Your task to perform on an android device: Open network settings Image 0: 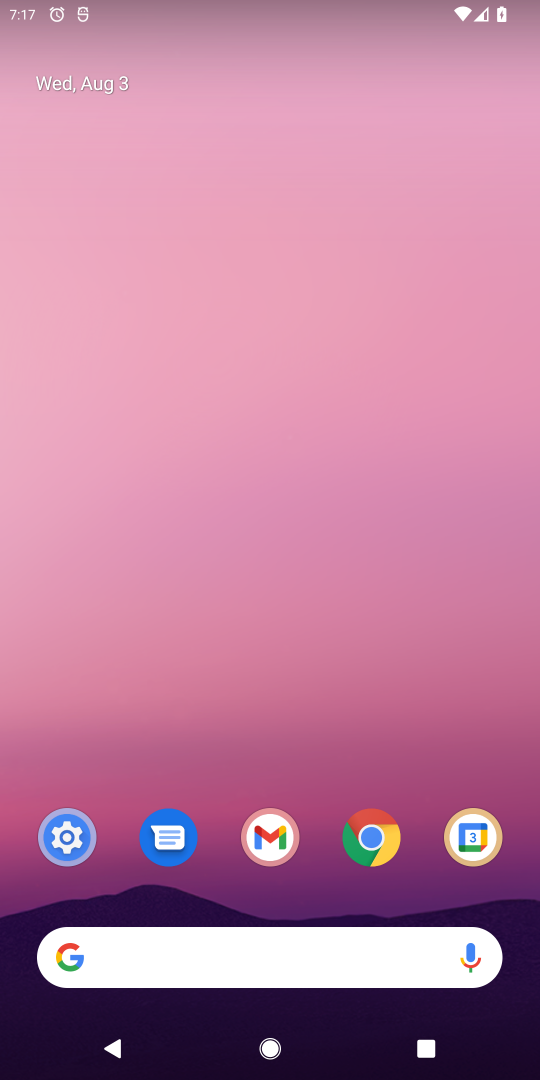
Step 0: press home button
Your task to perform on an android device: Open network settings Image 1: 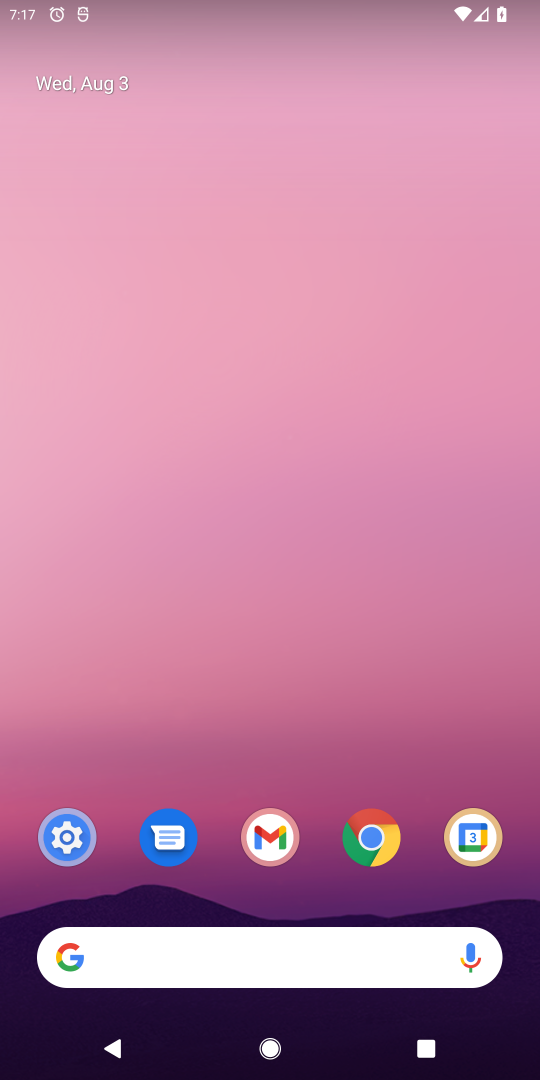
Step 1: drag from (338, 525) to (323, 97)
Your task to perform on an android device: Open network settings Image 2: 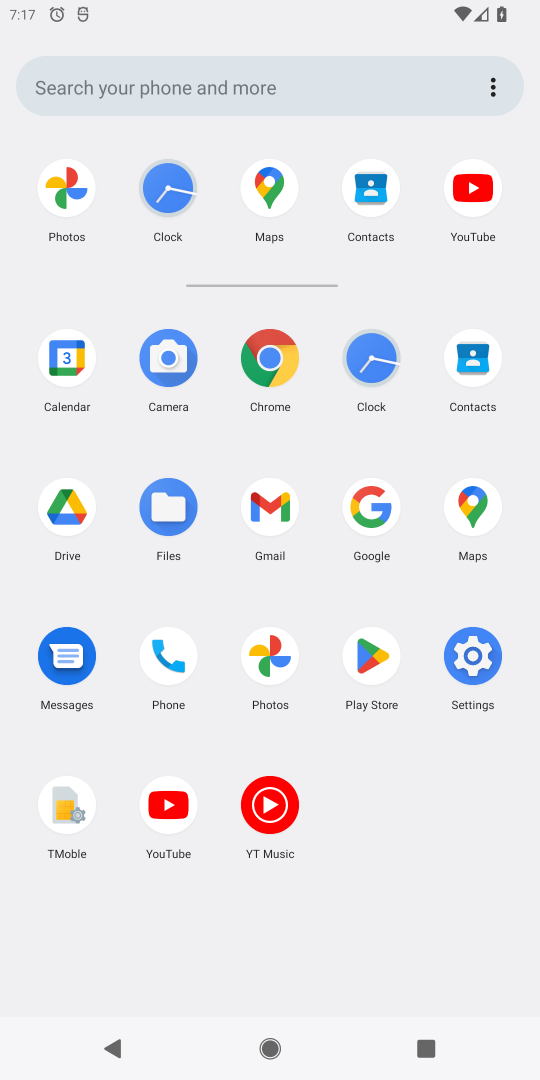
Step 2: click (488, 674)
Your task to perform on an android device: Open network settings Image 3: 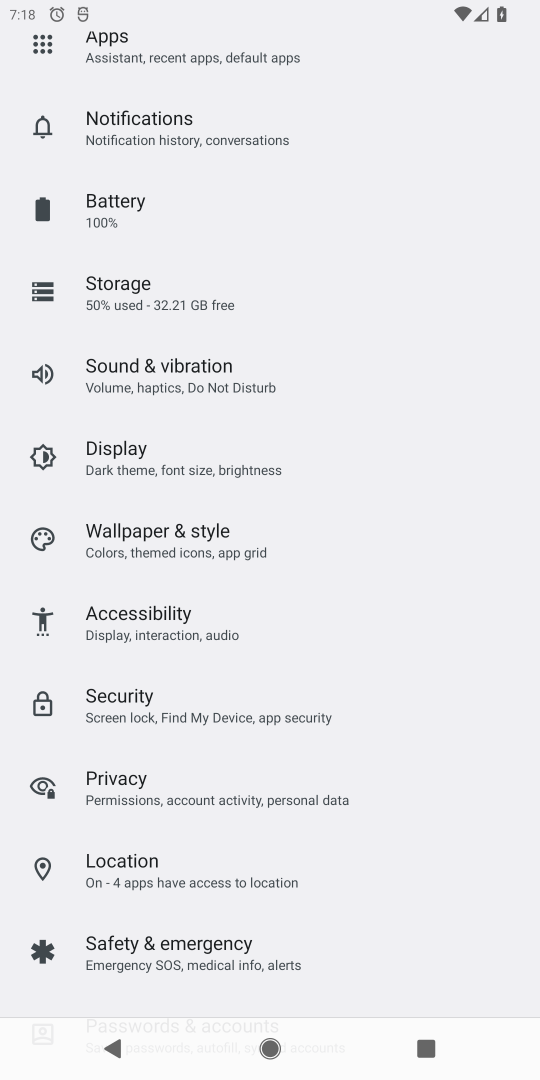
Step 3: drag from (274, 100) to (309, 621)
Your task to perform on an android device: Open network settings Image 4: 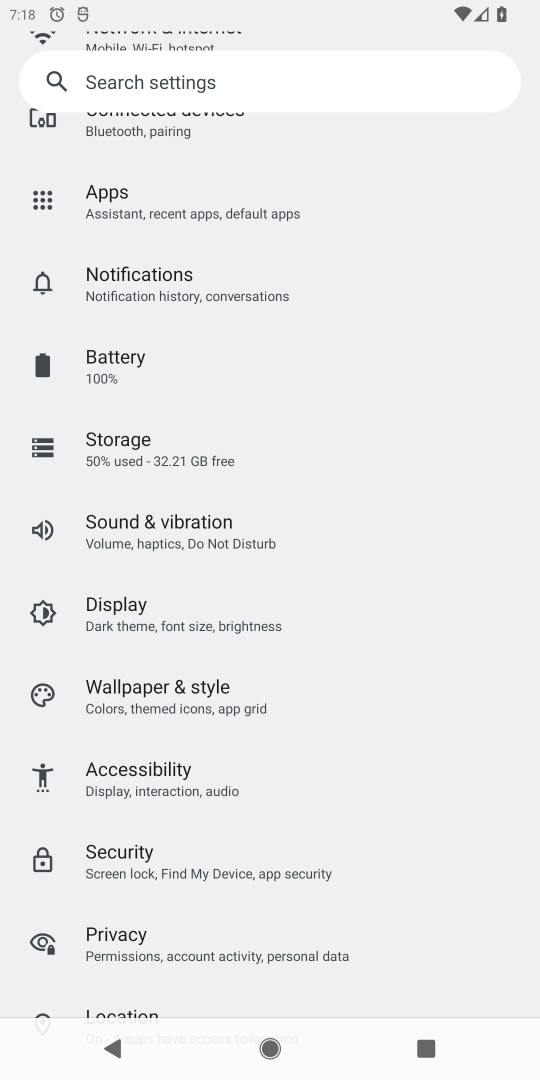
Step 4: drag from (230, 158) to (311, 795)
Your task to perform on an android device: Open network settings Image 5: 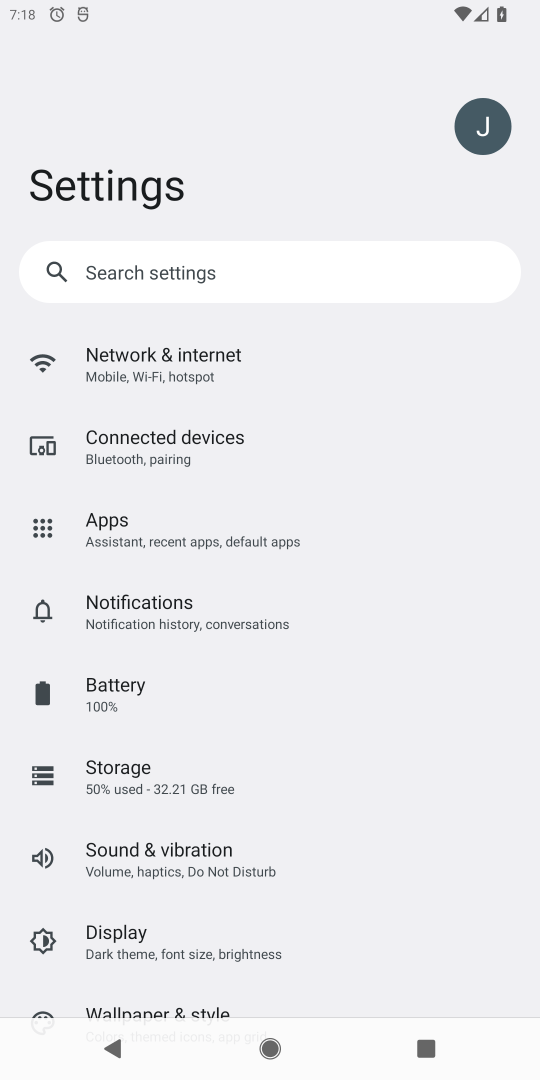
Step 5: click (183, 372)
Your task to perform on an android device: Open network settings Image 6: 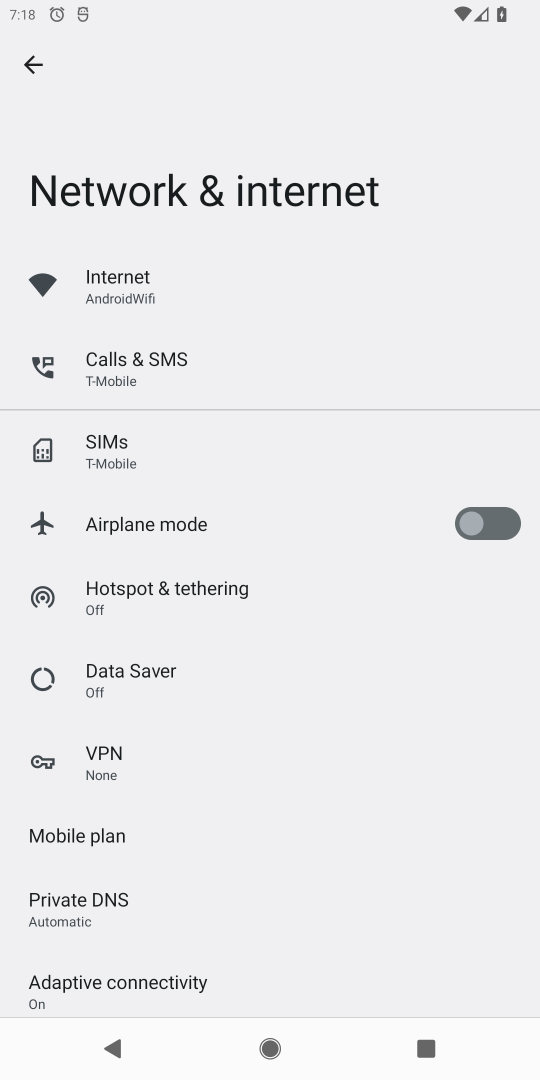
Step 6: click (119, 264)
Your task to perform on an android device: Open network settings Image 7: 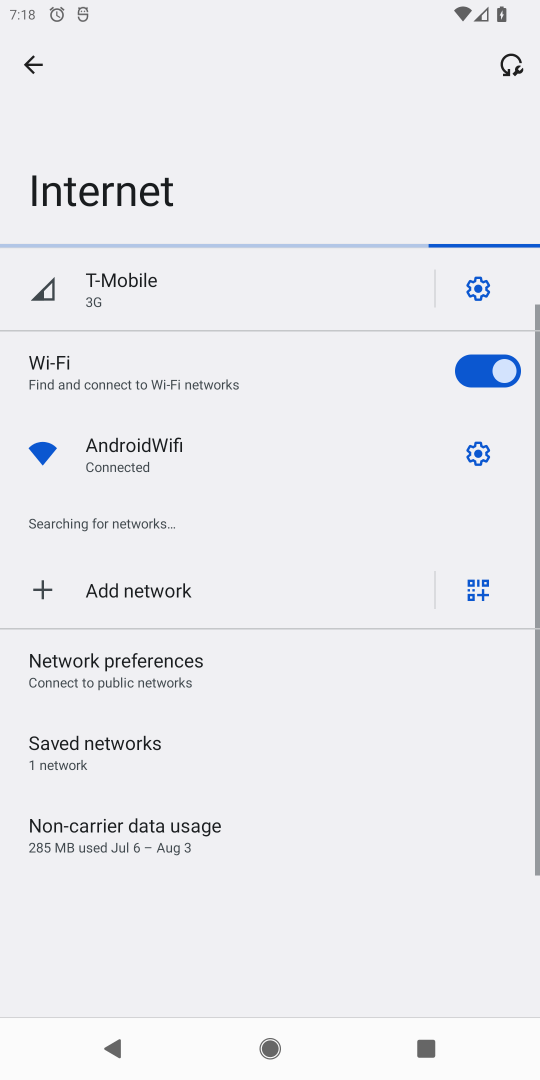
Step 7: task complete